Your task to perform on an android device: What is the recent news? Image 0: 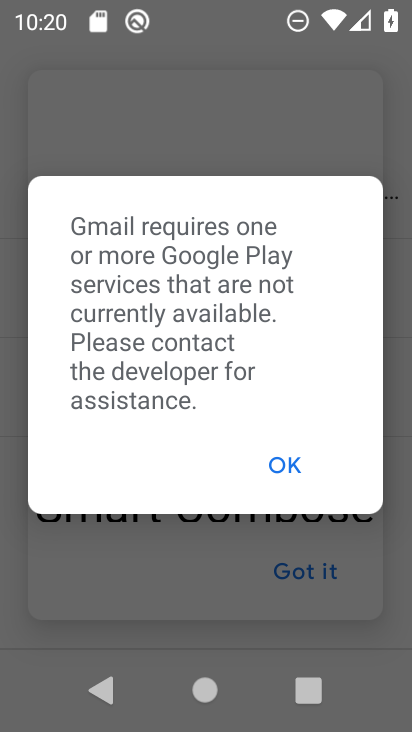
Step 0: press home button
Your task to perform on an android device: What is the recent news? Image 1: 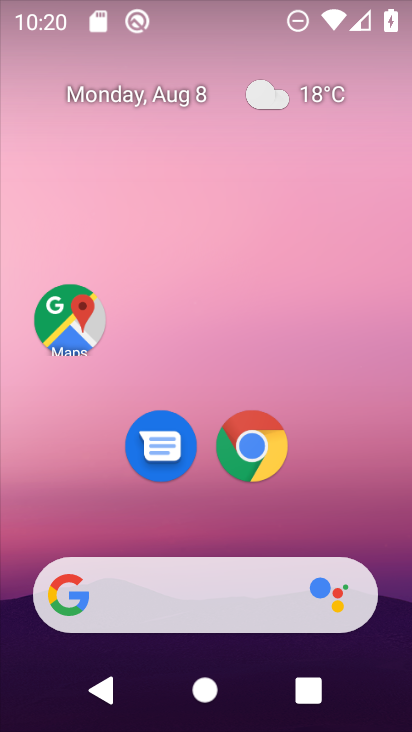
Step 1: task complete